Your task to perform on an android device: Open calendar and show me the first week of next month Image 0: 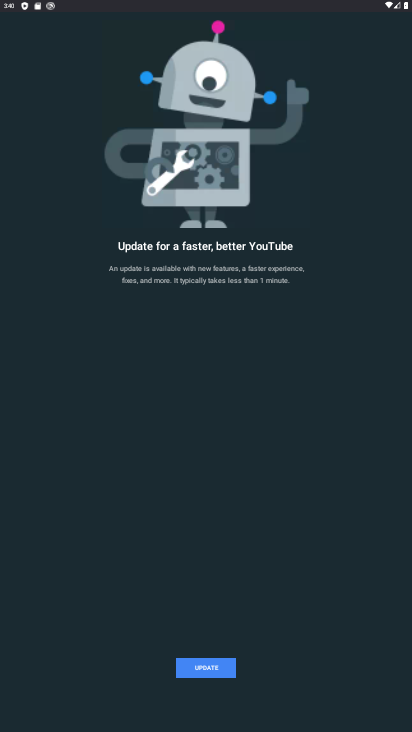
Step 0: press home button
Your task to perform on an android device: Open calendar and show me the first week of next month Image 1: 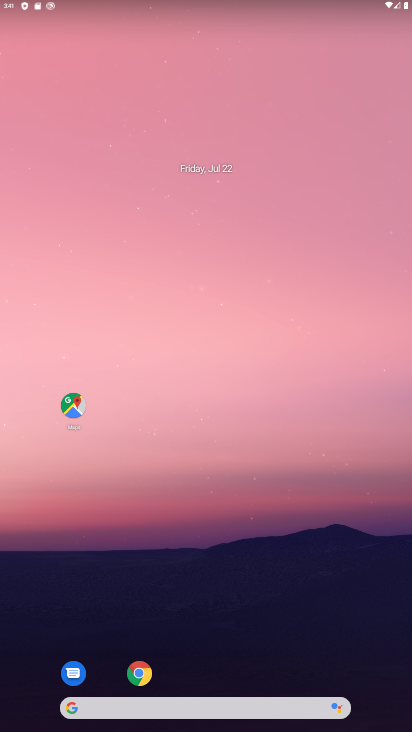
Step 1: drag from (191, 550) to (193, 379)
Your task to perform on an android device: Open calendar and show me the first week of next month Image 2: 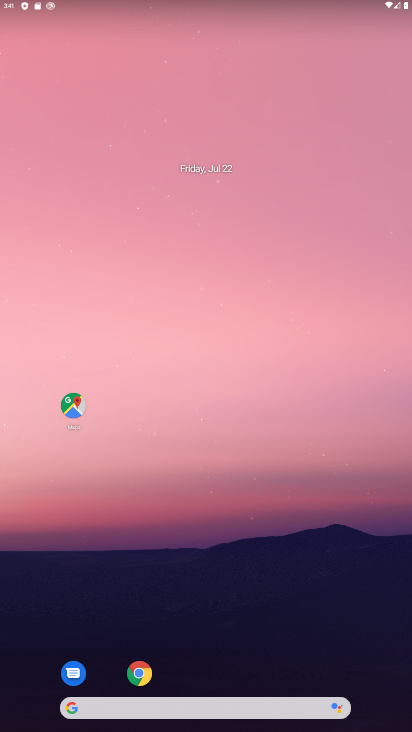
Step 2: drag from (221, 250) to (264, 43)
Your task to perform on an android device: Open calendar and show me the first week of next month Image 3: 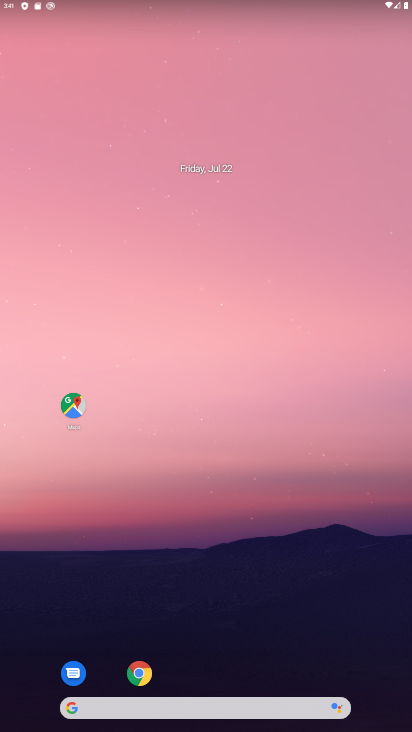
Step 3: drag from (202, 650) to (257, 137)
Your task to perform on an android device: Open calendar and show me the first week of next month Image 4: 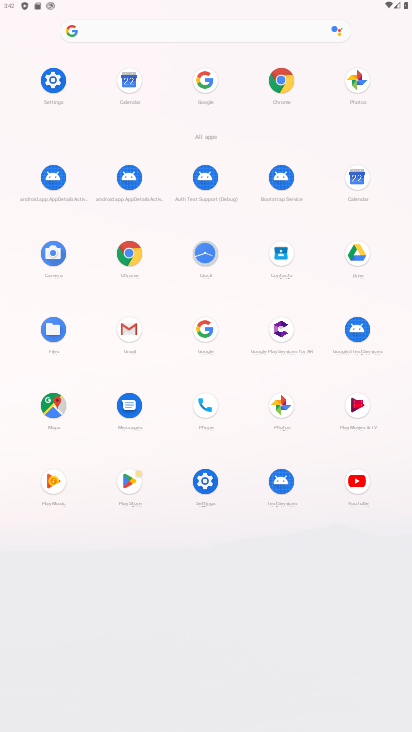
Step 4: click (134, 84)
Your task to perform on an android device: Open calendar and show me the first week of next month Image 5: 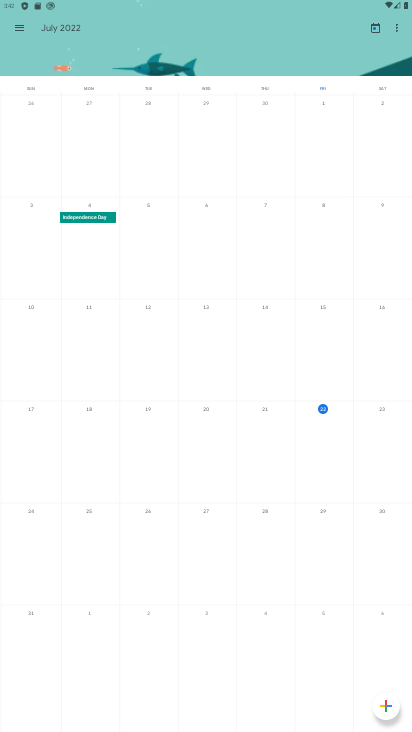
Step 5: drag from (304, 261) to (16, 288)
Your task to perform on an android device: Open calendar and show me the first week of next month Image 6: 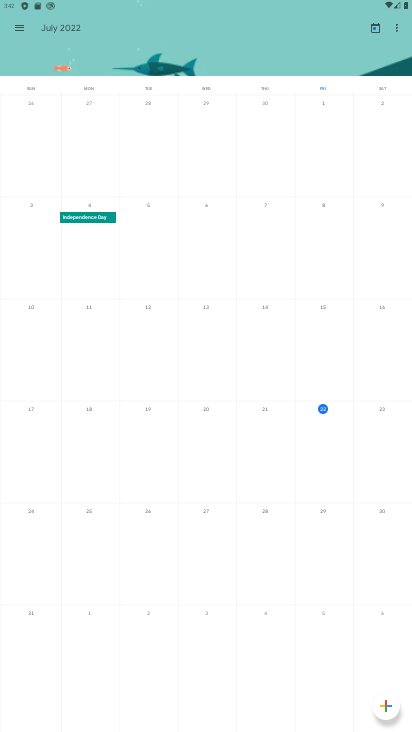
Step 6: drag from (386, 204) to (12, 210)
Your task to perform on an android device: Open calendar and show me the first week of next month Image 7: 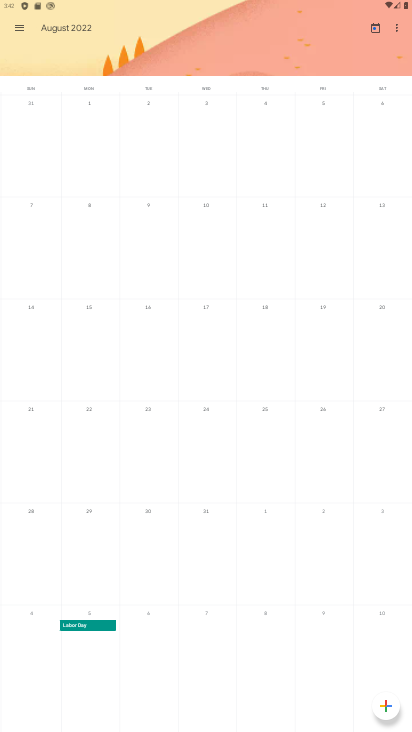
Step 7: click (91, 105)
Your task to perform on an android device: Open calendar and show me the first week of next month Image 8: 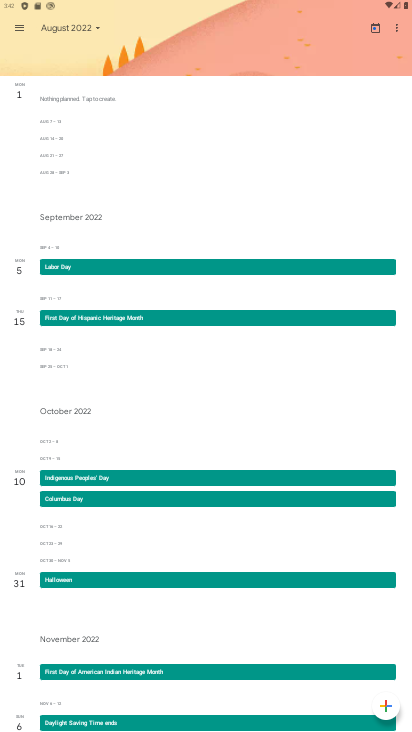
Step 8: task complete